Your task to perform on an android device: Open Google Maps Image 0: 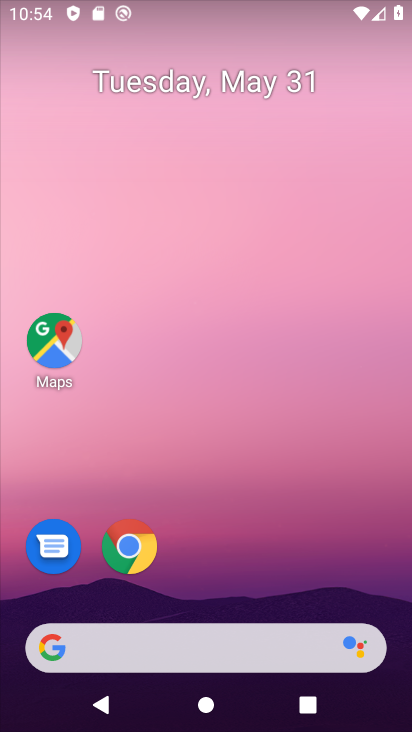
Step 0: drag from (189, 612) to (341, 595)
Your task to perform on an android device: Open Google Maps Image 1: 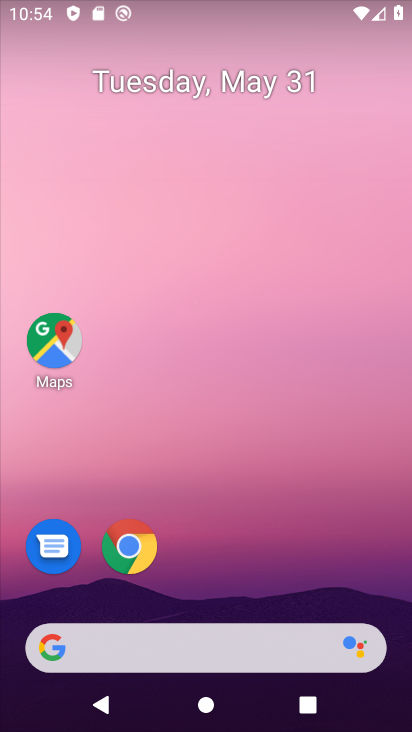
Step 1: drag from (201, 614) to (150, 0)
Your task to perform on an android device: Open Google Maps Image 2: 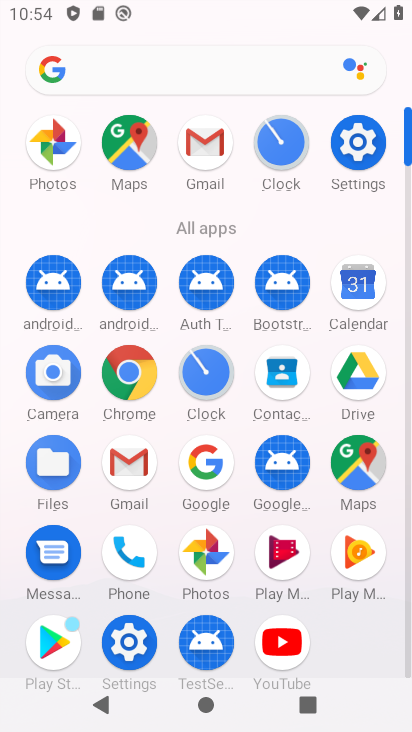
Step 2: click (353, 469)
Your task to perform on an android device: Open Google Maps Image 3: 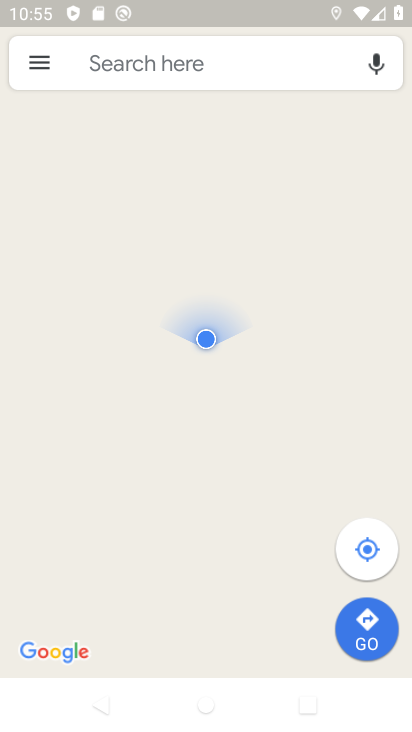
Step 3: task complete